Your task to perform on an android device: Show the shopping cart on costco. Search for jbl flip 4 on costco, select the first entry, and add it to the cart. Image 0: 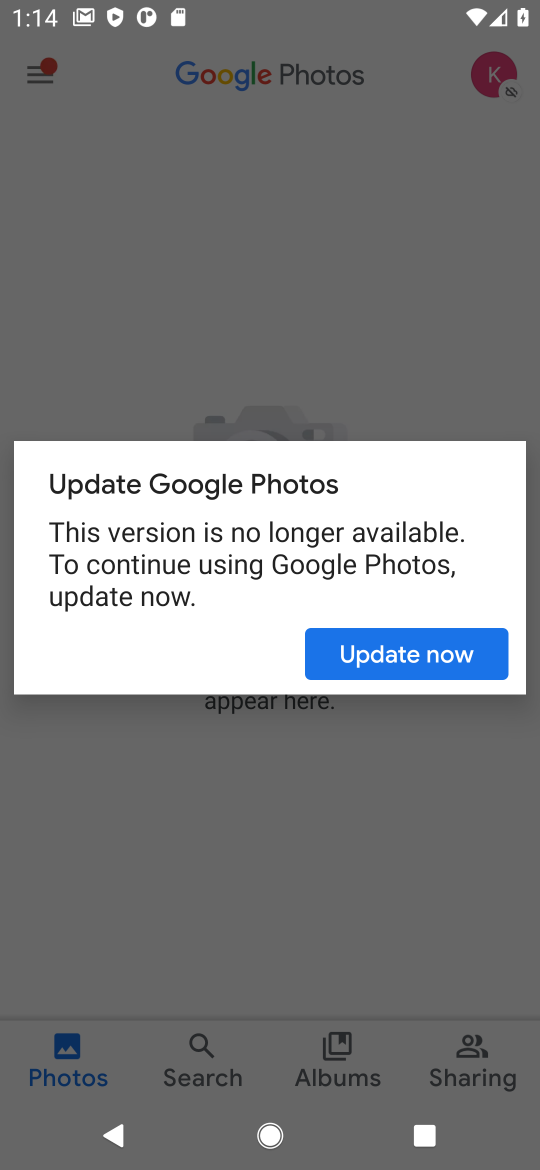
Step 0: press home button
Your task to perform on an android device: Show the shopping cart on costco. Search for jbl flip 4 on costco, select the first entry, and add it to the cart. Image 1: 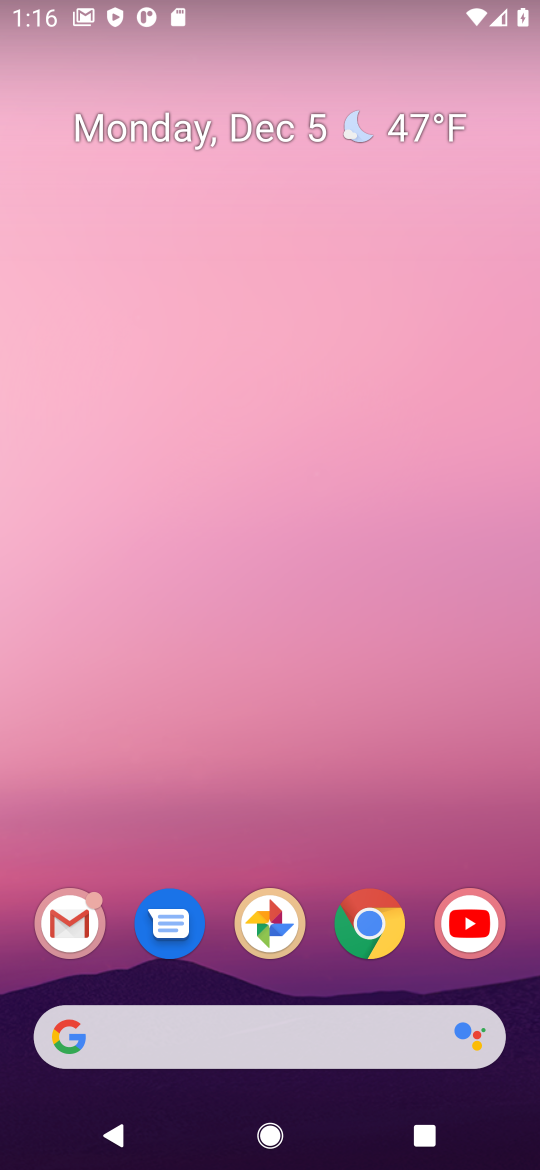
Step 1: click (332, 1038)
Your task to perform on an android device: Show the shopping cart on costco. Search for jbl flip 4 on costco, select the first entry, and add it to the cart. Image 2: 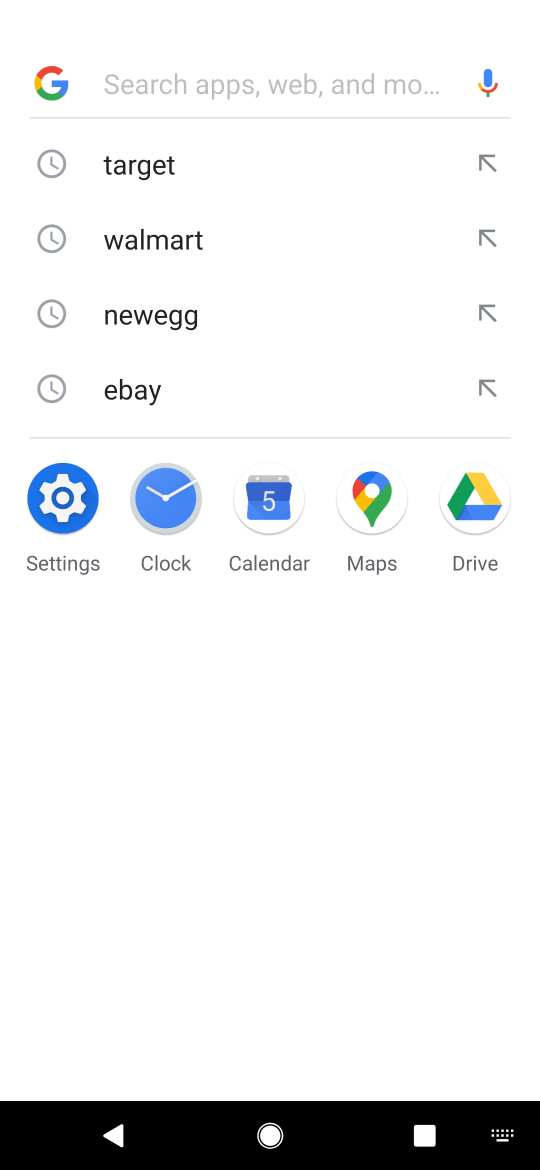
Step 2: type "costco"
Your task to perform on an android device: Show the shopping cart on costco. Search for jbl flip 4 on costco, select the first entry, and add it to the cart. Image 3: 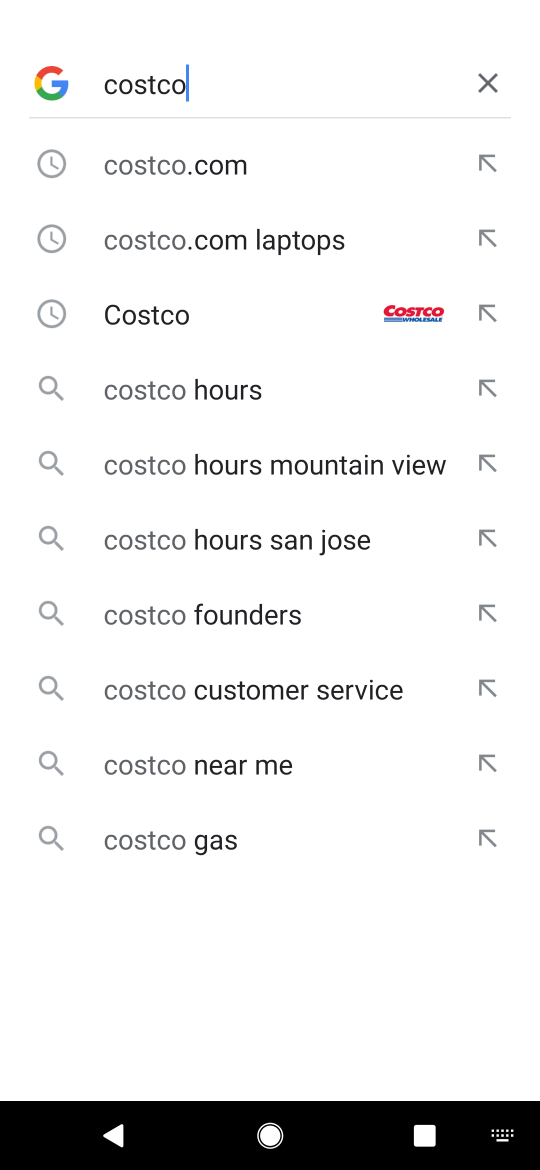
Step 3: click (190, 149)
Your task to perform on an android device: Show the shopping cart on costco. Search for jbl flip 4 on costco, select the first entry, and add it to the cart. Image 4: 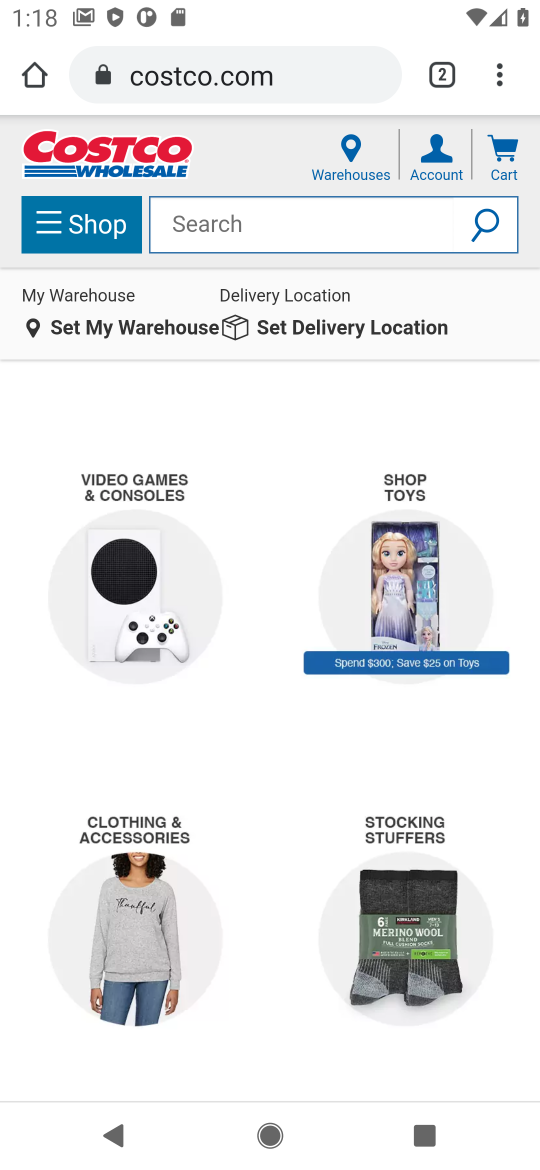
Step 4: task complete